Your task to perform on an android device: change the clock display to show seconds Image 0: 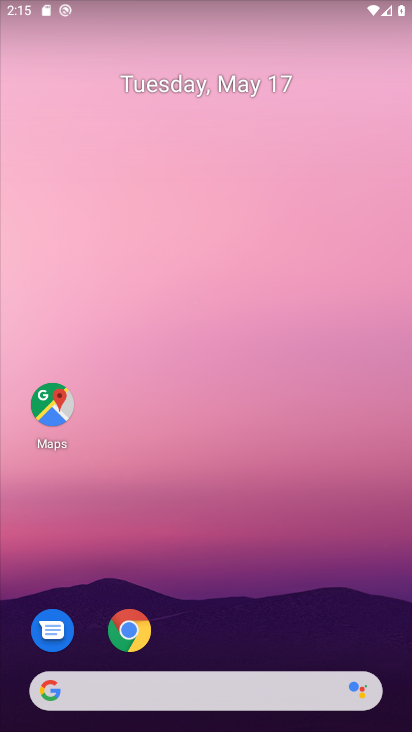
Step 0: drag from (228, 645) to (268, 263)
Your task to perform on an android device: change the clock display to show seconds Image 1: 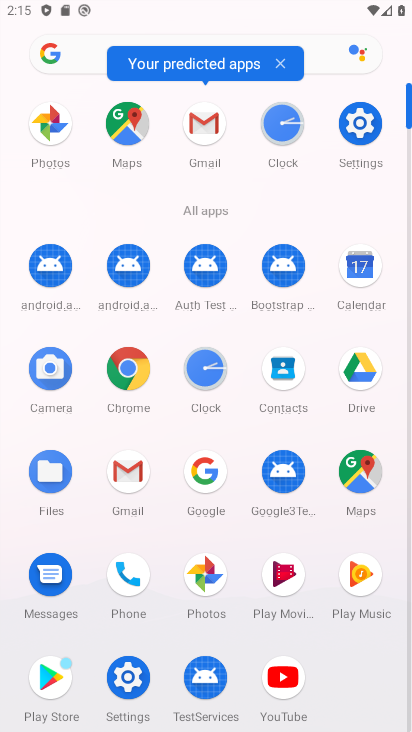
Step 1: click (286, 121)
Your task to perform on an android device: change the clock display to show seconds Image 2: 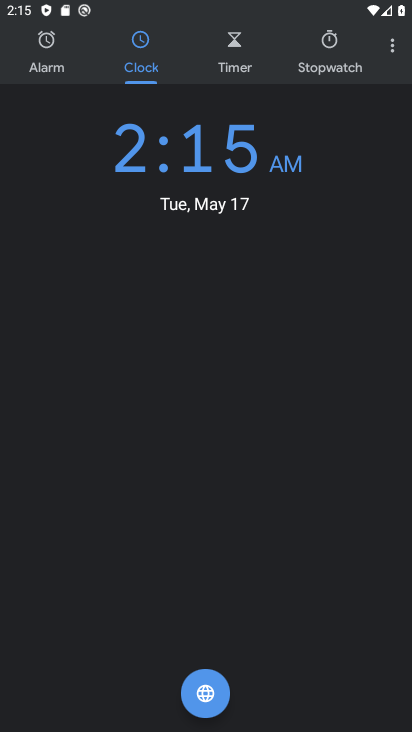
Step 2: click (392, 54)
Your task to perform on an android device: change the clock display to show seconds Image 3: 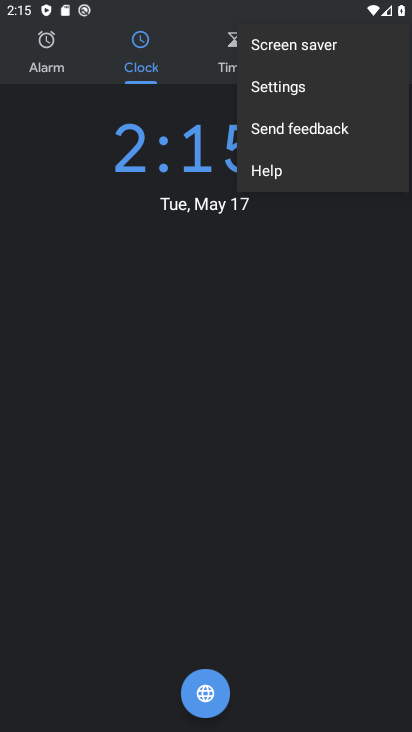
Step 3: click (299, 87)
Your task to perform on an android device: change the clock display to show seconds Image 4: 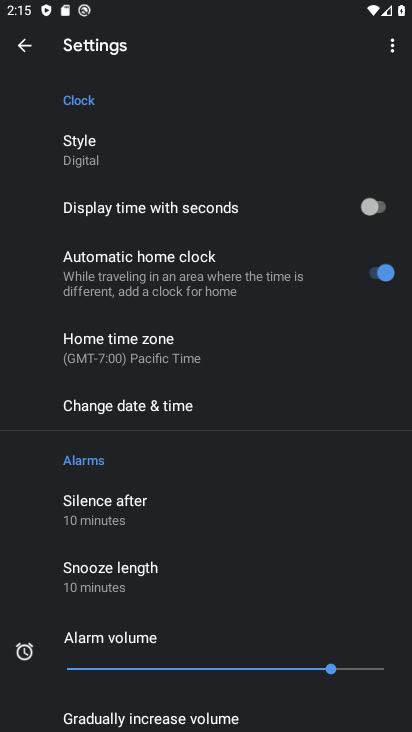
Step 4: click (382, 207)
Your task to perform on an android device: change the clock display to show seconds Image 5: 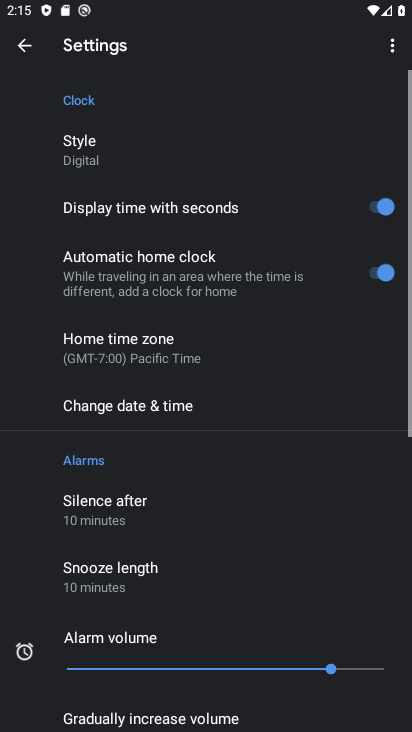
Step 5: task complete